Your task to perform on an android device: Open Google Chrome and click the shortcut for Amazon.com Image 0: 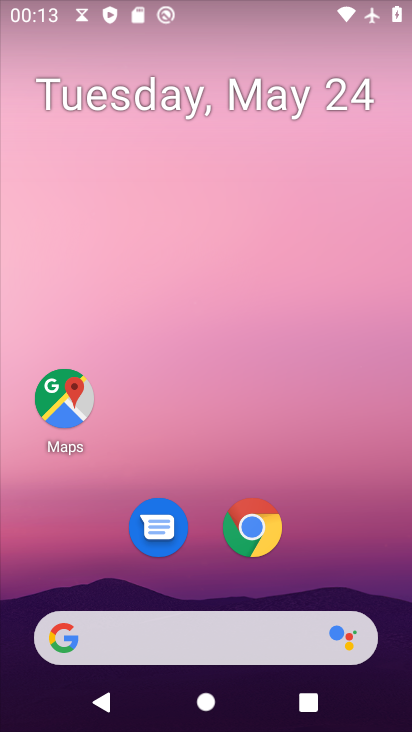
Step 0: press home button
Your task to perform on an android device: Open Google Chrome and click the shortcut for Amazon.com Image 1: 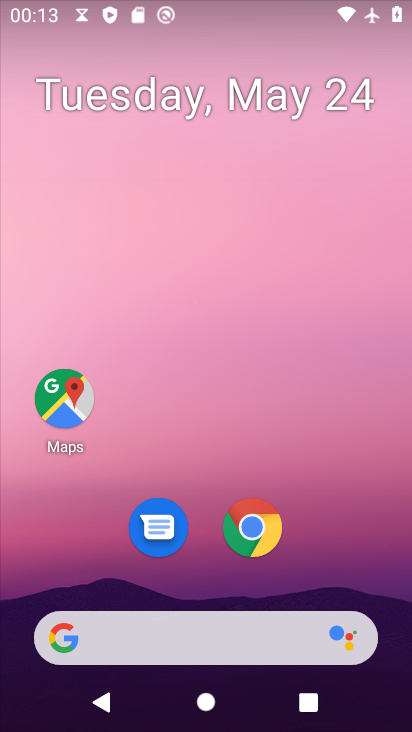
Step 1: click (244, 537)
Your task to perform on an android device: Open Google Chrome and click the shortcut for Amazon.com Image 2: 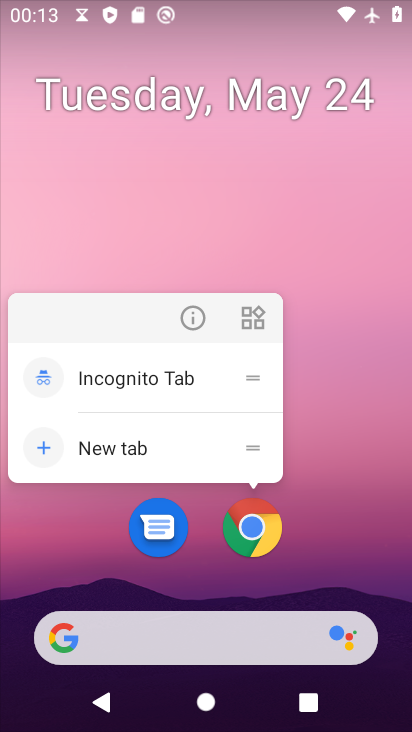
Step 2: click (267, 528)
Your task to perform on an android device: Open Google Chrome and click the shortcut for Amazon.com Image 3: 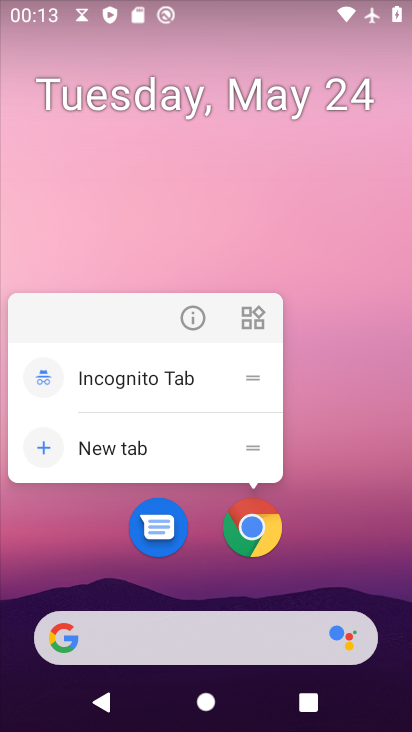
Step 3: click (249, 530)
Your task to perform on an android device: Open Google Chrome and click the shortcut for Amazon.com Image 4: 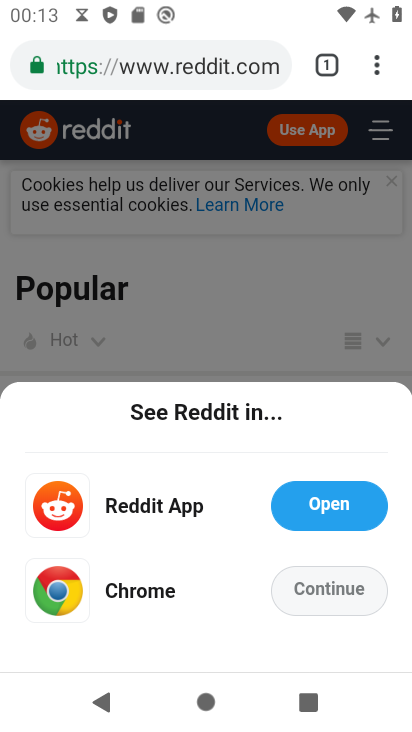
Step 4: drag from (381, 69) to (253, 128)
Your task to perform on an android device: Open Google Chrome and click the shortcut for Amazon.com Image 5: 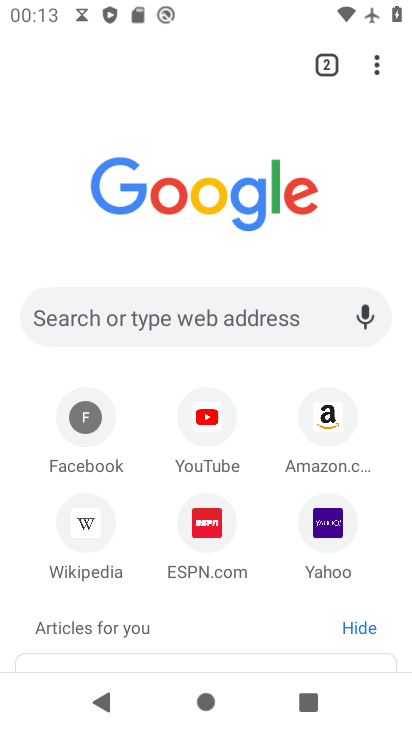
Step 5: click (321, 418)
Your task to perform on an android device: Open Google Chrome and click the shortcut for Amazon.com Image 6: 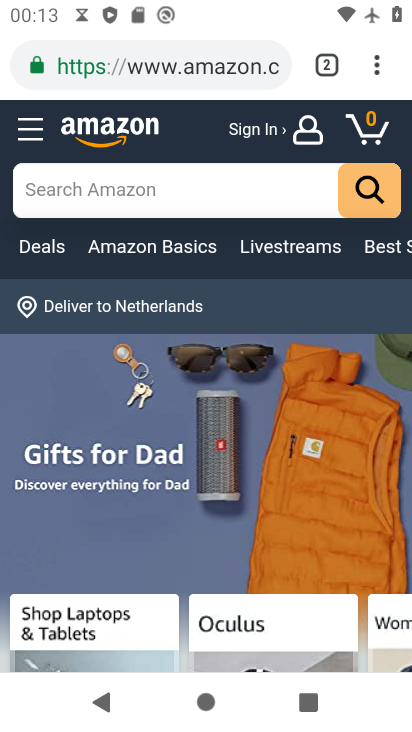
Step 6: task complete